Your task to perform on an android device: Go to privacy settings Image 0: 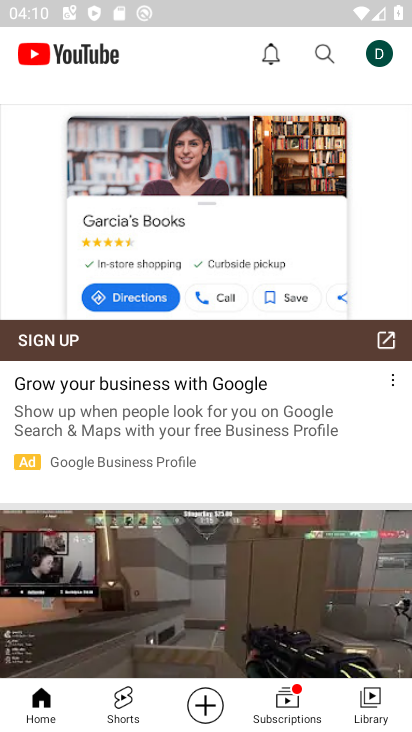
Step 0: press home button
Your task to perform on an android device: Go to privacy settings Image 1: 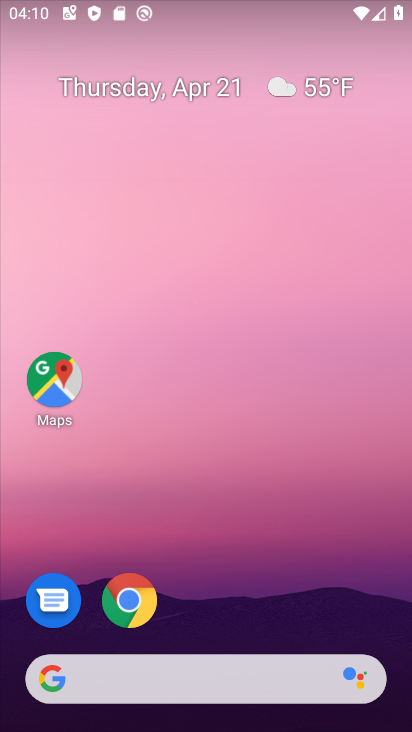
Step 1: click (131, 605)
Your task to perform on an android device: Go to privacy settings Image 2: 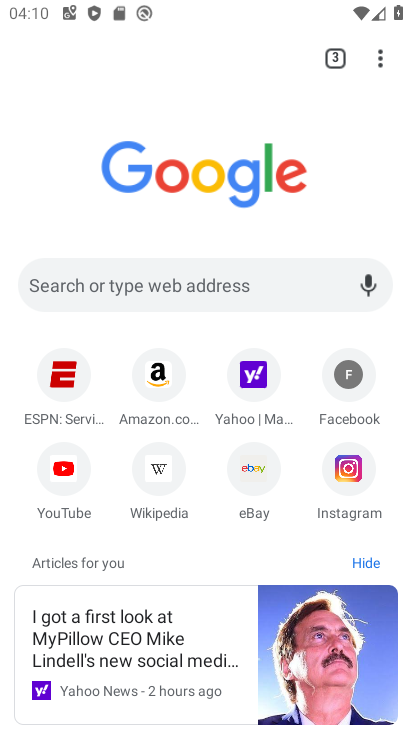
Step 2: click (376, 58)
Your task to perform on an android device: Go to privacy settings Image 3: 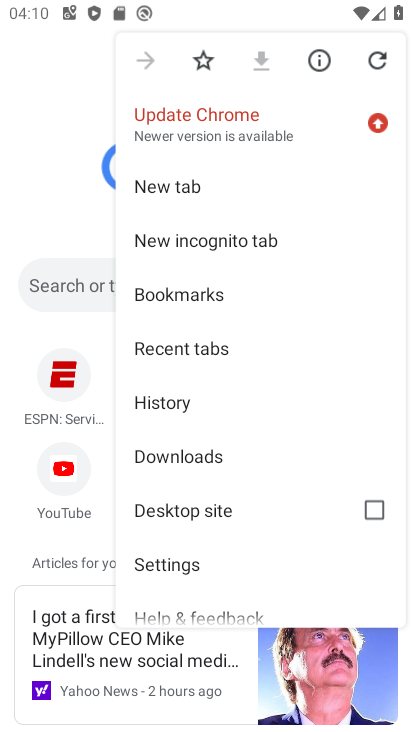
Step 3: click (170, 566)
Your task to perform on an android device: Go to privacy settings Image 4: 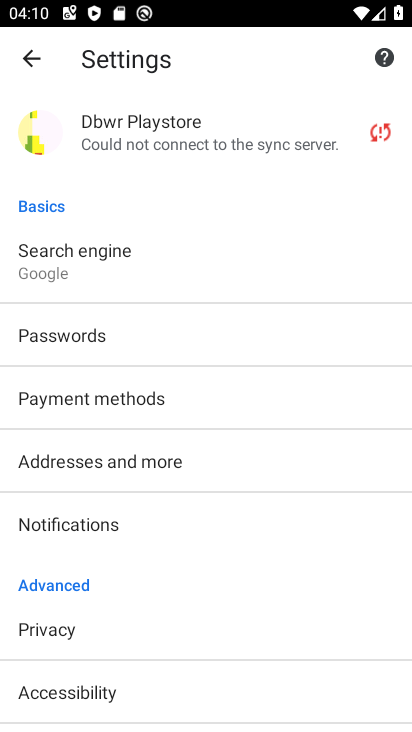
Step 4: click (92, 630)
Your task to perform on an android device: Go to privacy settings Image 5: 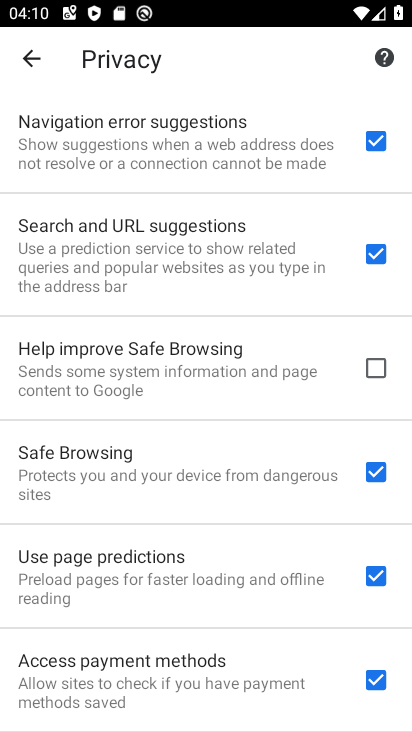
Step 5: task complete